Your task to perform on an android device: What's on my calendar today? Image 0: 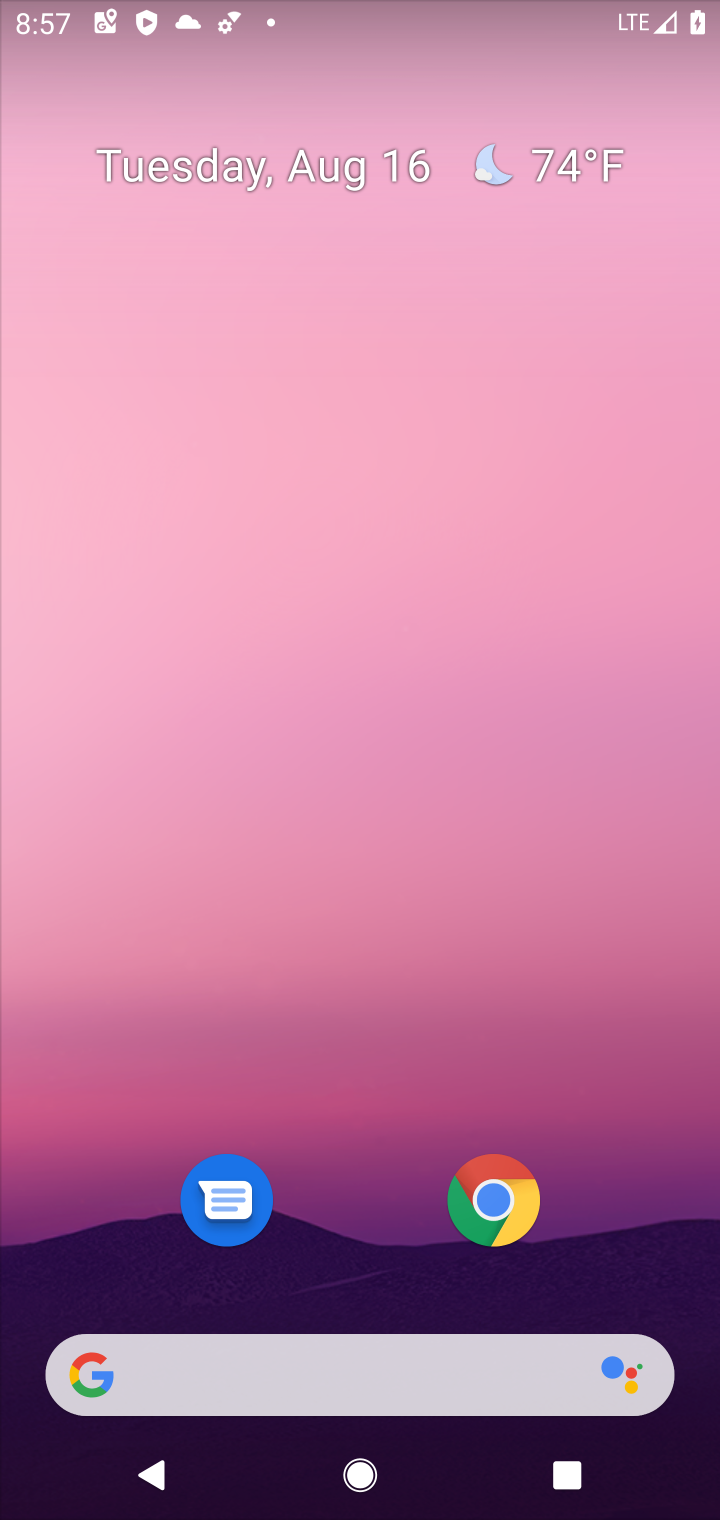
Step 0: drag from (659, 1268) to (580, 291)
Your task to perform on an android device: What's on my calendar today? Image 1: 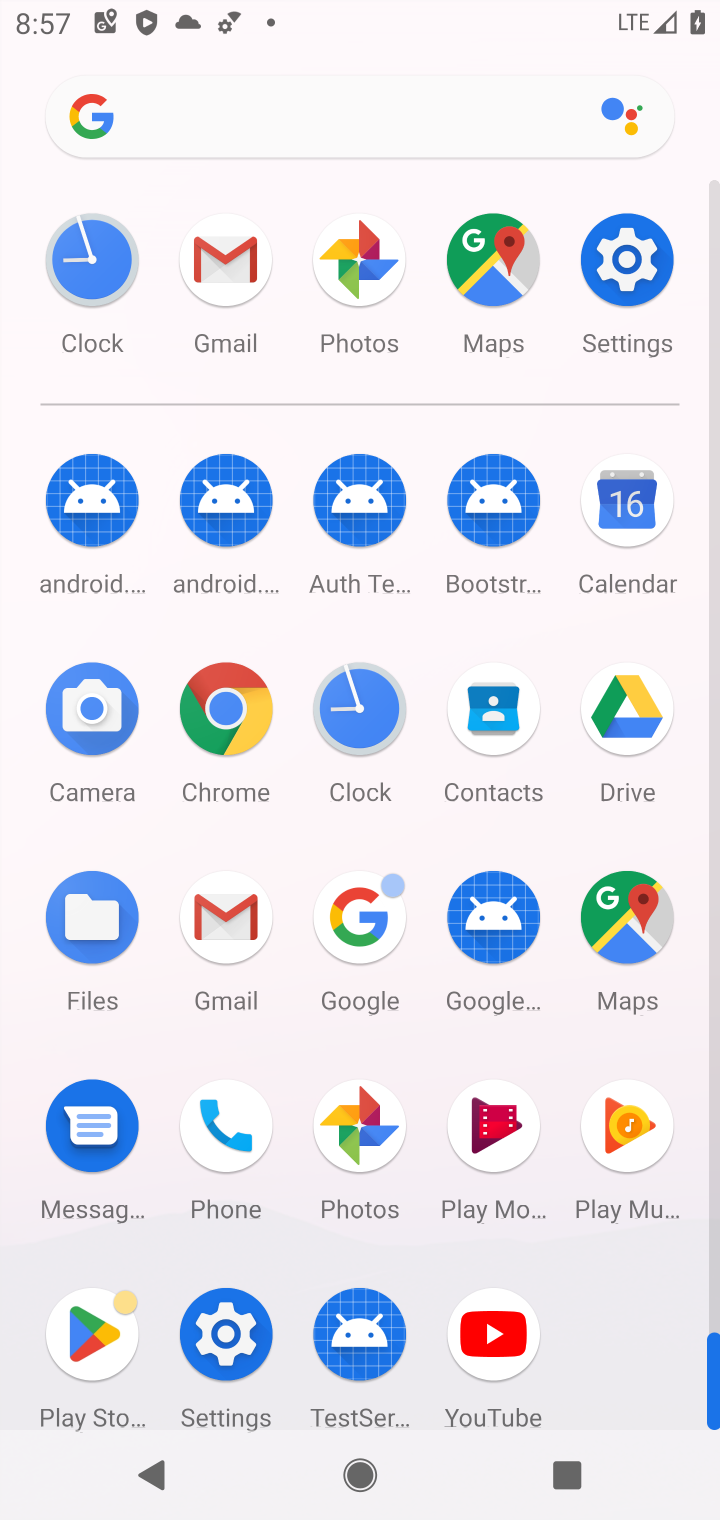
Step 1: click (626, 505)
Your task to perform on an android device: What's on my calendar today? Image 2: 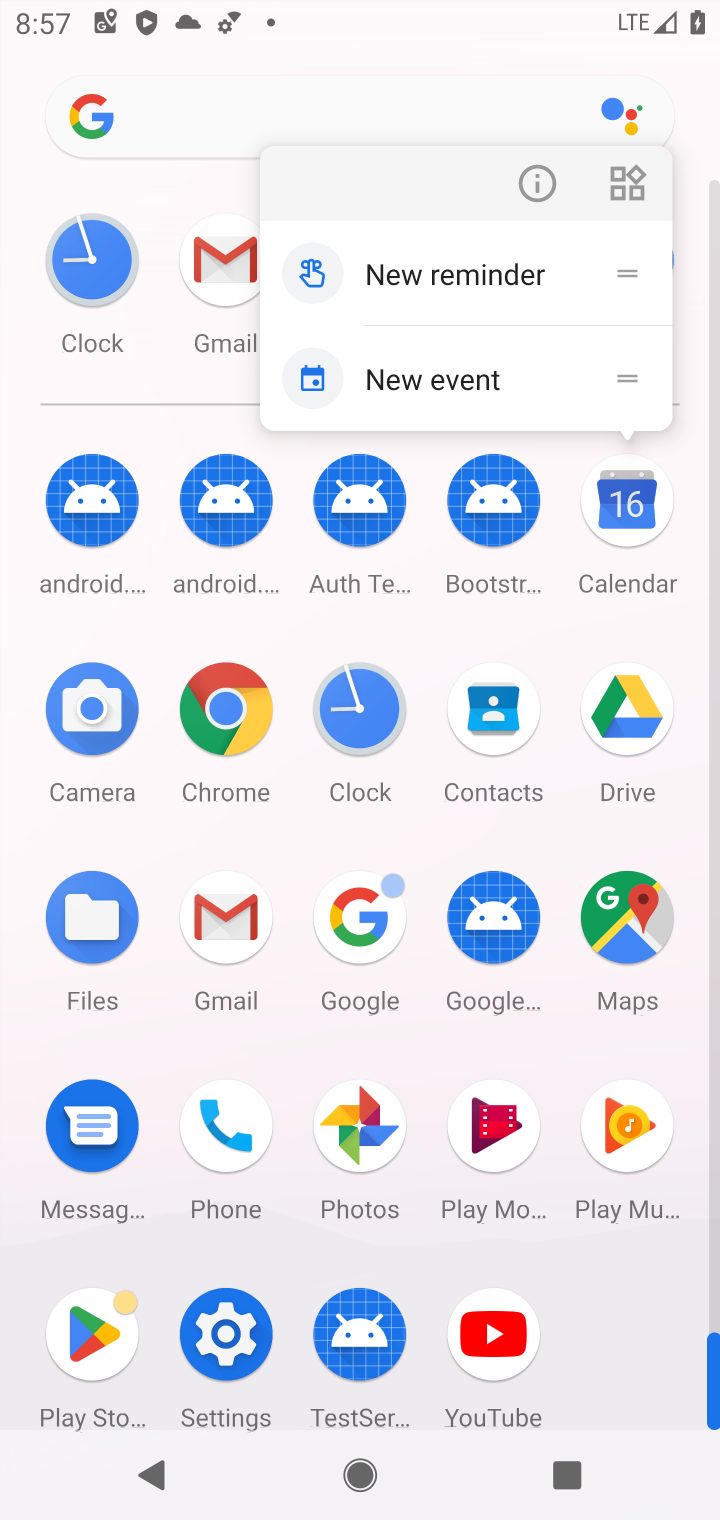
Step 2: click (626, 508)
Your task to perform on an android device: What's on my calendar today? Image 3: 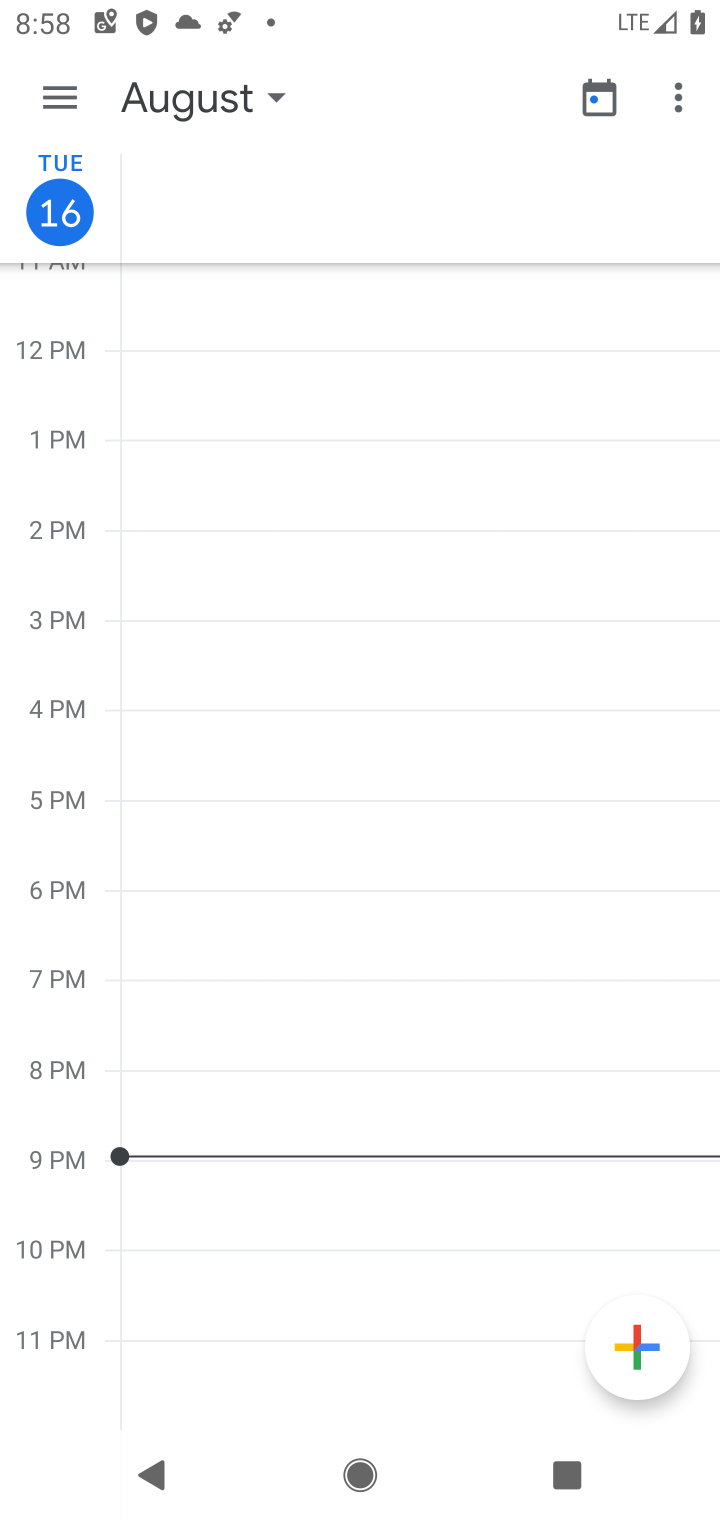
Step 3: task complete